Your task to perform on an android device: make emails show in primary in the gmail app Image 0: 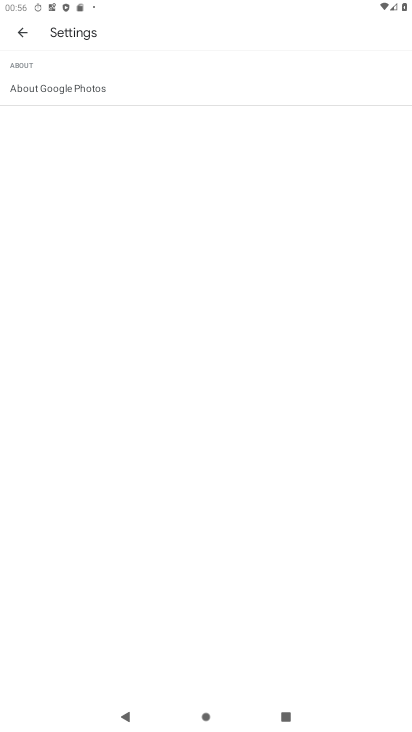
Step 0: press home button
Your task to perform on an android device: make emails show in primary in the gmail app Image 1: 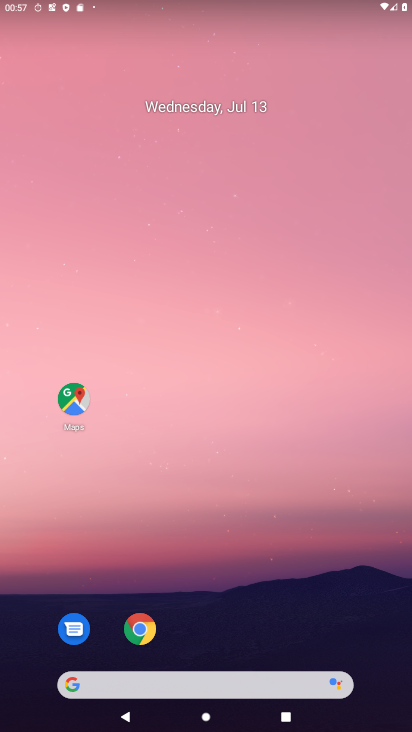
Step 1: drag from (175, 628) to (137, 243)
Your task to perform on an android device: make emails show in primary in the gmail app Image 2: 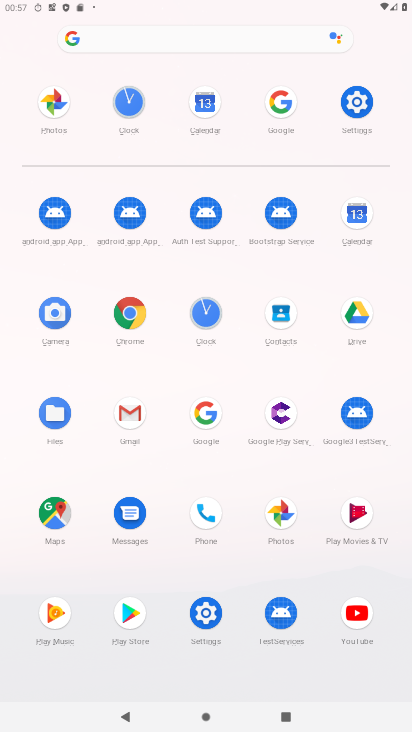
Step 2: click (114, 412)
Your task to perform on an android device: make emails show in primary in the gmail app Image 3: 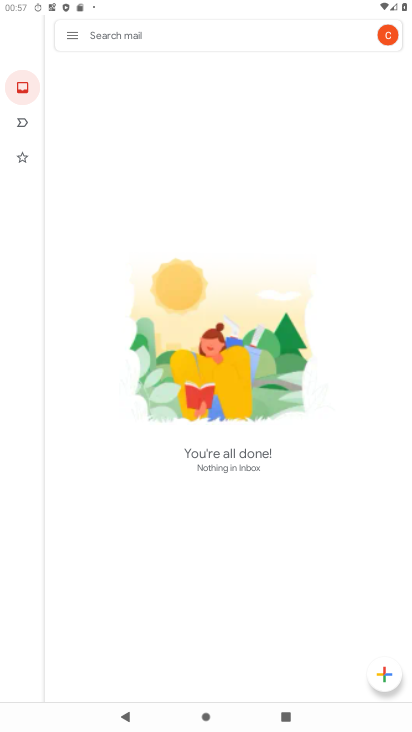
Step 3: click (69, 38)
Your task to perform on an android device: make emails show in primary in the gmail app Image 4: 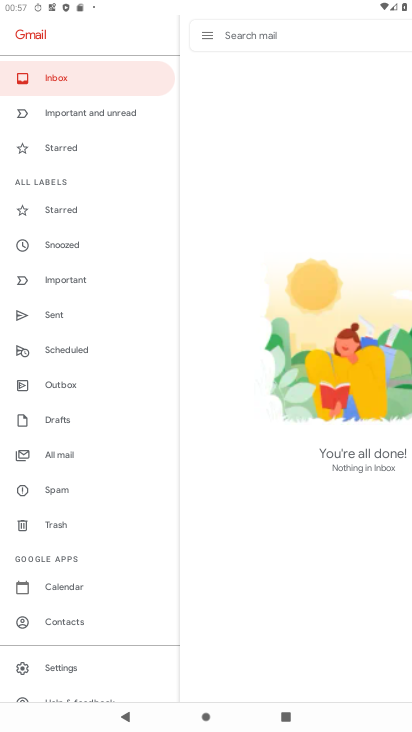
Step 4: click (71, 663)
Your task to perform on an android device: make emails show in primary in the gmail app Image 5: 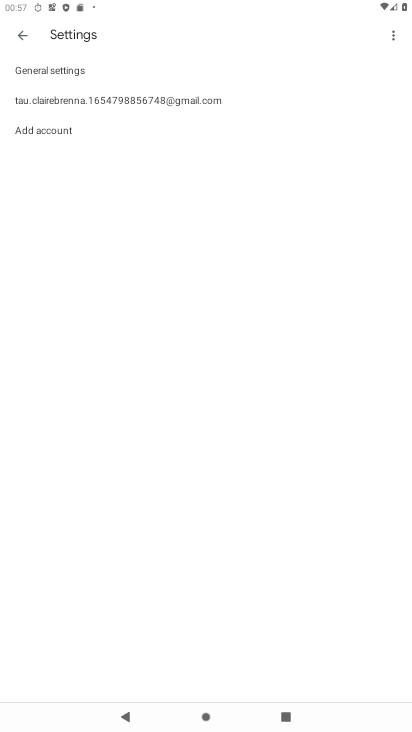
Step 5: click (132, 101)
Your task to perform on an android device: make emails show in primary in the gmail app Image 6: 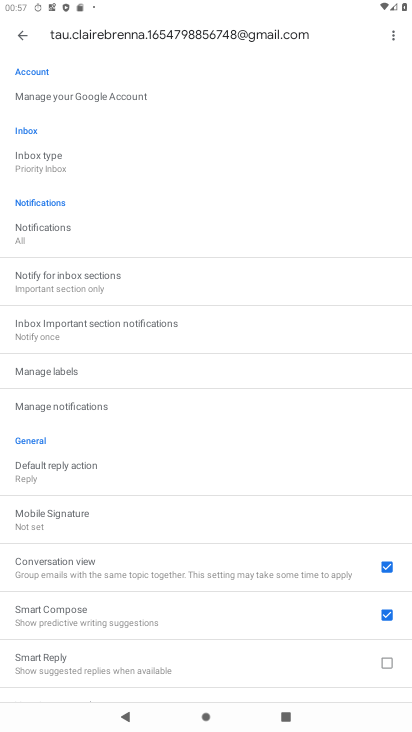
Step 6: click (68, 162)
Your task to perform on an android device: make emails show in primary in the gmail app Image 7: 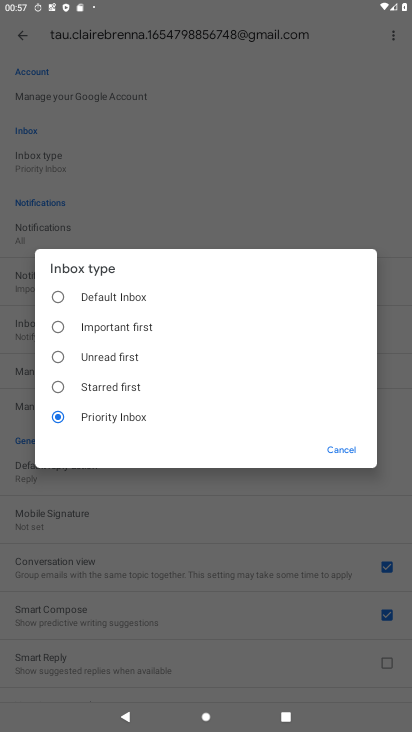
Step 7: click (111, 302)
Your task to perform on an android device: make emails show in primary in the gmail app Image 8: 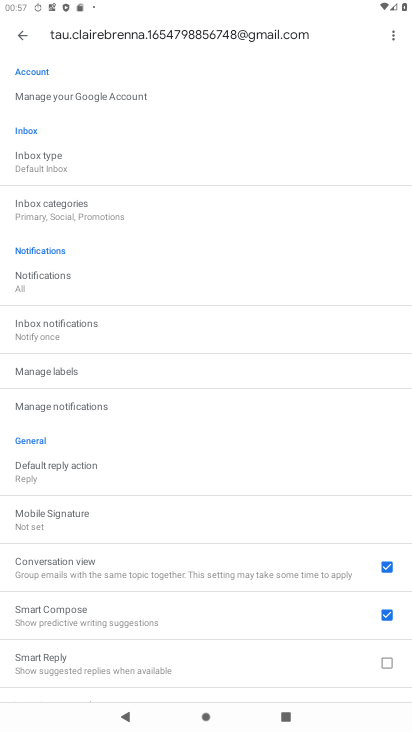
Step 8: task complete